Your task to perform on an android device: toggle sleep mode Image 0: 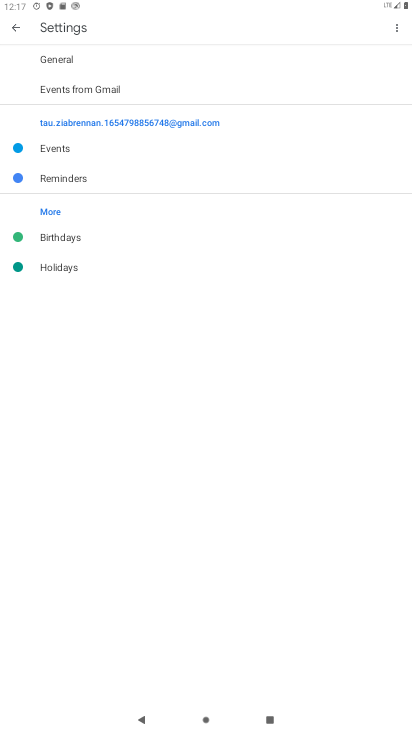
Step 0: press home button
Your task to perform on an android device: toggle sleep mode Image 1: 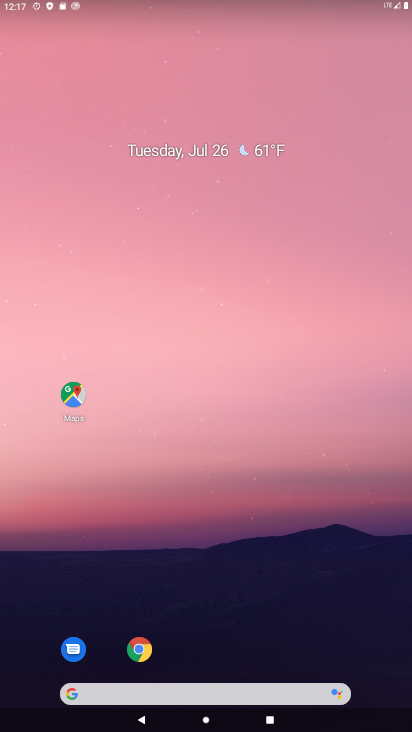
Step 1: drag from (193, 668) to (196, 150)
Your task to perform on an android device: toggle sleep mode Image 2: 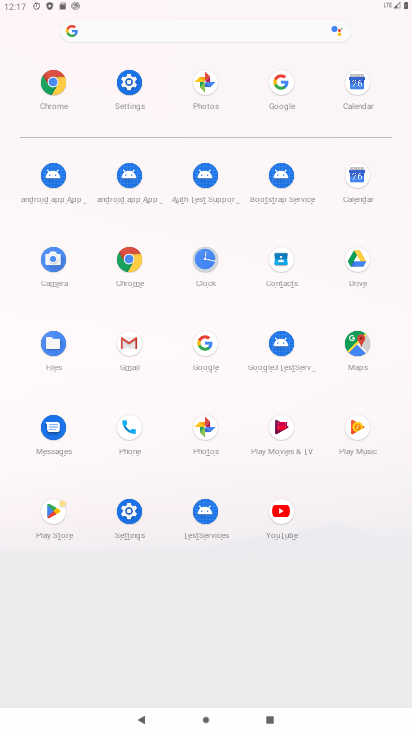
Step 2: click (133, 78)
Your task to perform on an android device: toggle sleep mode Image 3: 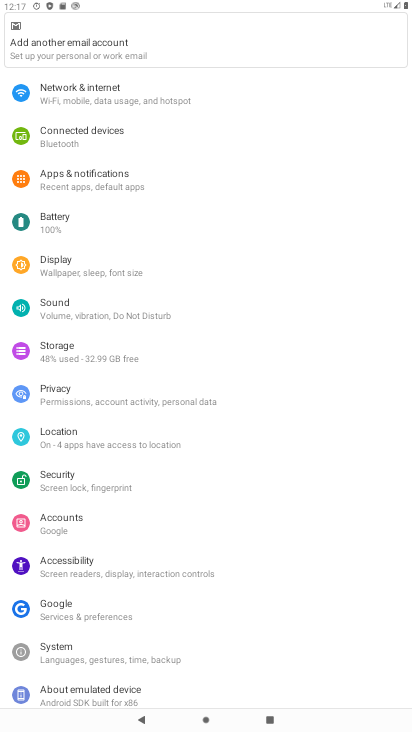
Step 3: drag from (116, 195) to (108, 514)
Your task to perform on an android device: toggle sleep mode Image 4: 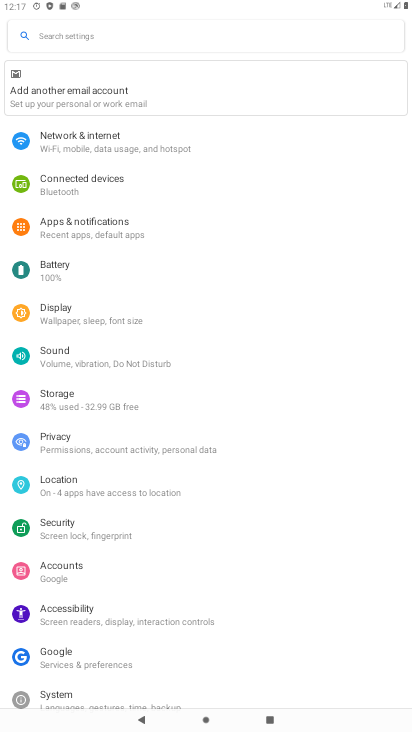
Step 4: click (51, 314)
Your task to perform on an android device: toggle sleep mode Image 5: 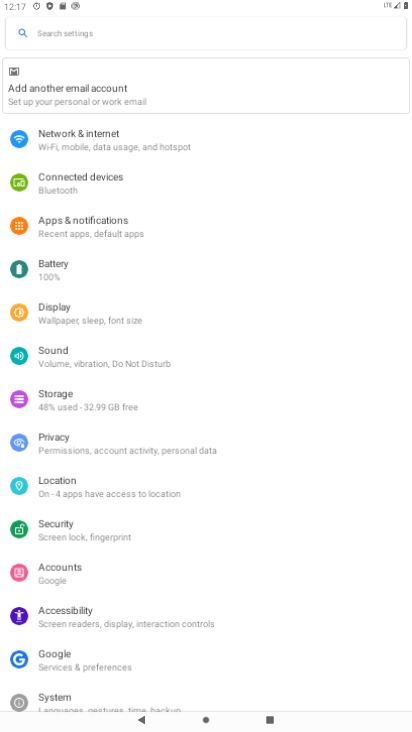
Step 5: task complete